Your task to perform on an android device: see tabs open on other devices in the chrome app Image 0: 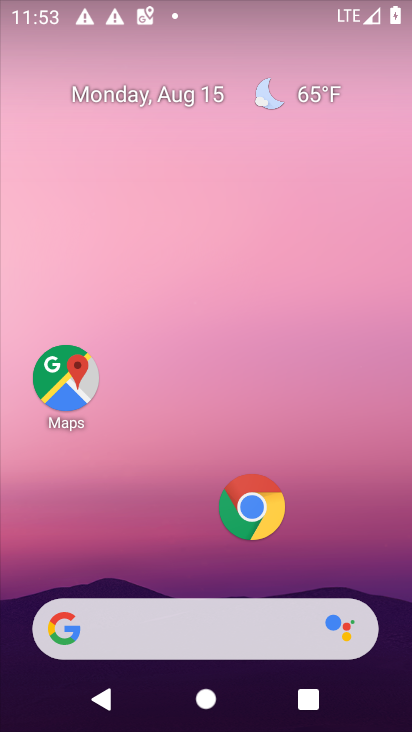
Step 0: click (251, 505)
Your task to perform on an android device: see tabs open on other devices in the chrome app Image 1: 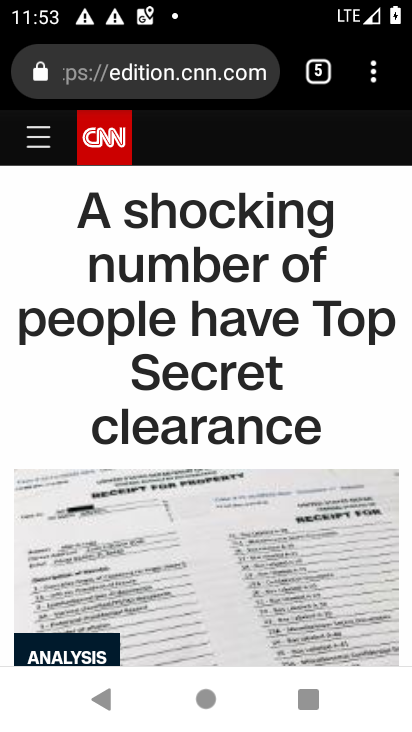
Step 1: click (374, 69)
Your task to perform on an android device: see tabs open on other devices in the chrome app Image 2: 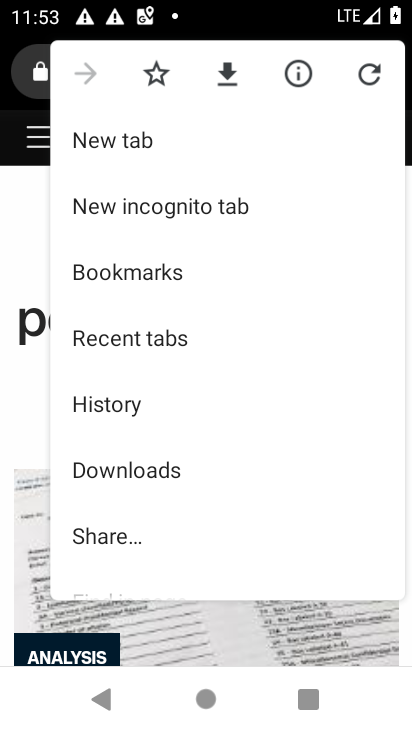
Step 2: click (122, 409)
Your task to perform on an android device: see tabs open on other devices in the chrome app Image 3: 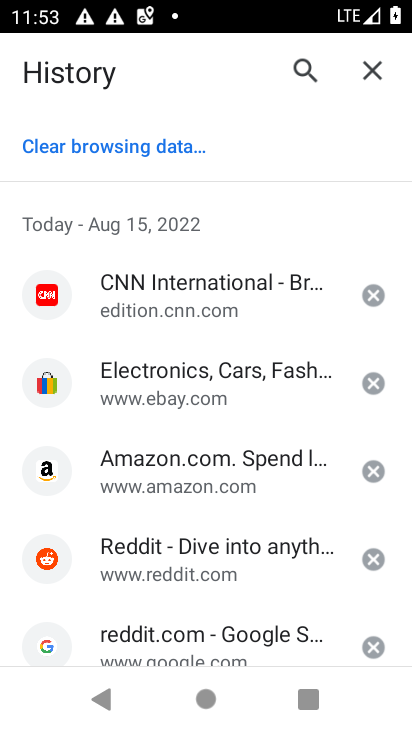
Step 3: task complete